Your task to perform on an android device: add a label to a message in the gmail app Image 0: 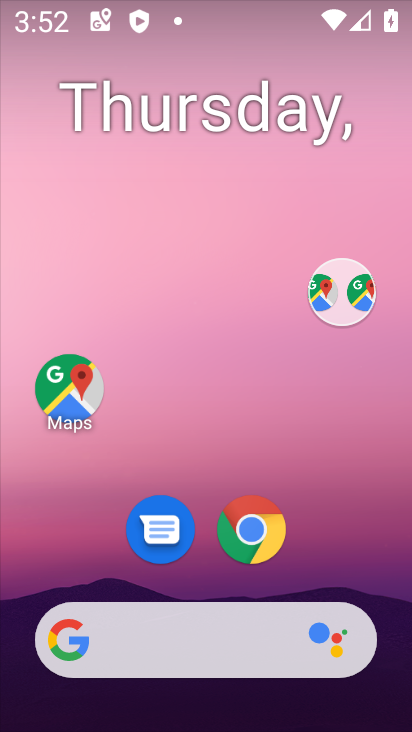
Step 0: drag from (229, 596) to (257, 14)
Your task to perform on an android device: add a label to a message in the gmail app Image 1: 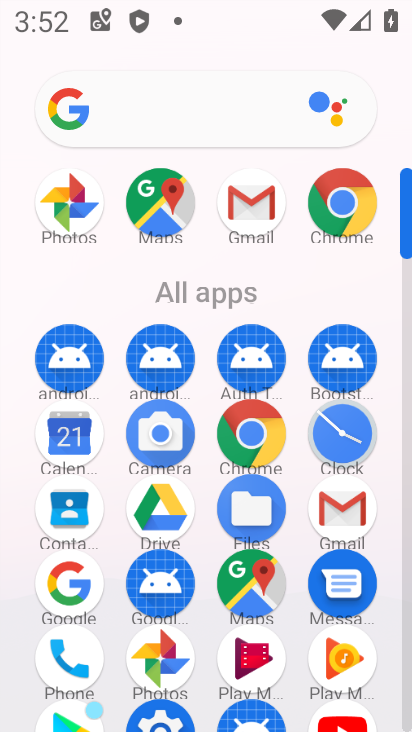
Step 1: click (256, 199)
Your task to perform on an android device: add a label to a message in the gmail app Image 2: 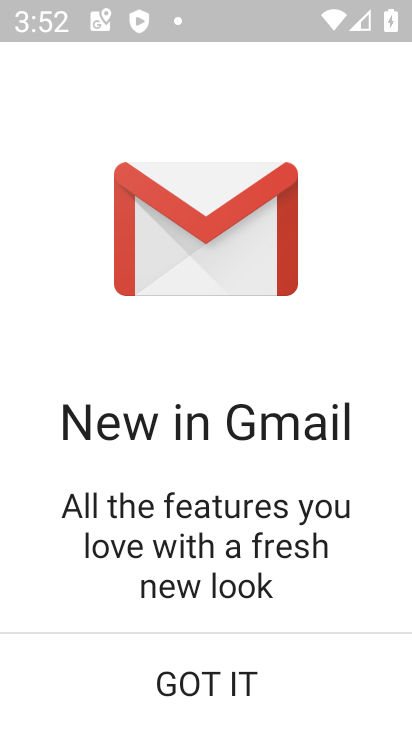
Step 2: click (223, 679)
Your task to perform on an android device: add a label to a message in the gmail app Image 3: 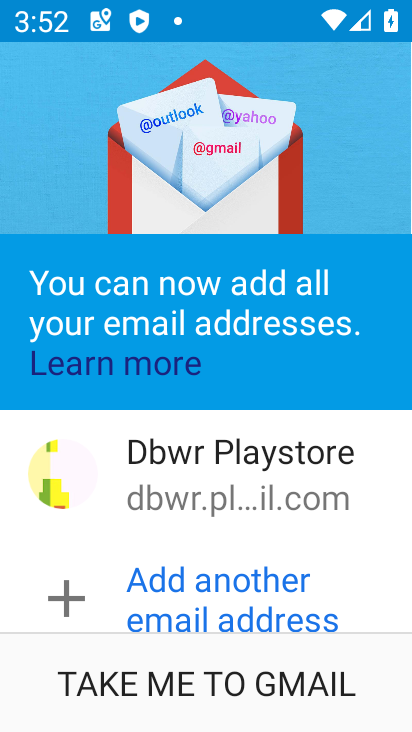
Step 3: click (218, 683)
Your task to perform on an android device: add a label to a message in the gmail app Image 4: 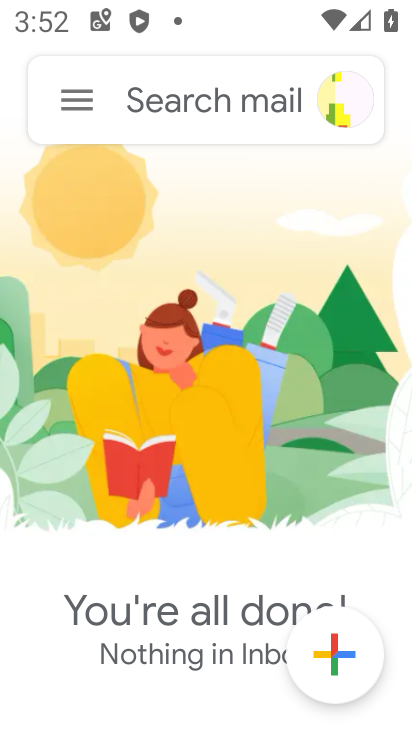
Step 4: task complete